Your task to perform on an android device: add a contact in the contacts app Image 0: 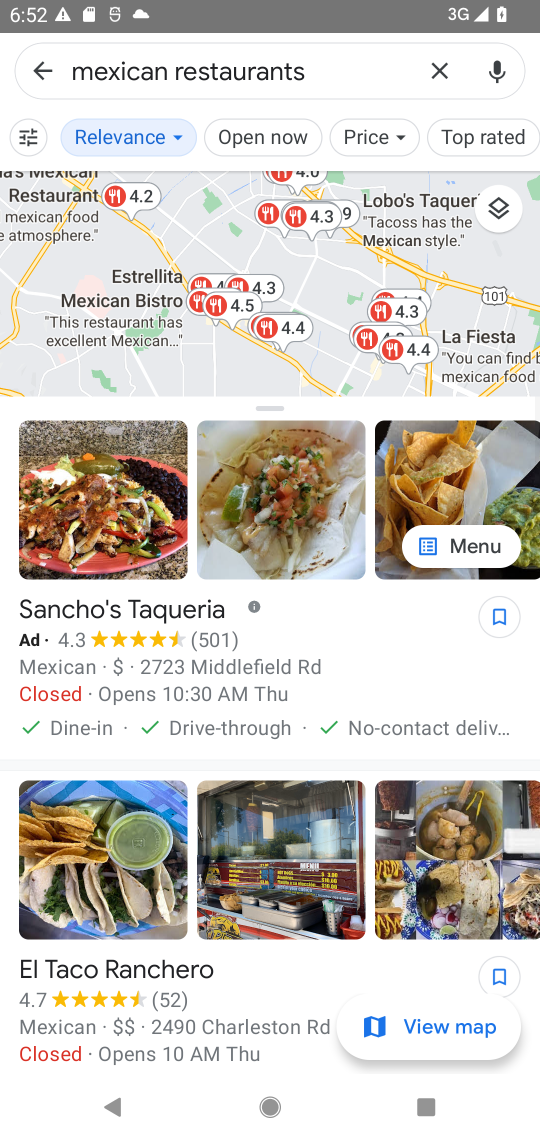
Step 0: press home button
Your task to perform on an android device: add a contact in the contacts app Image 1: 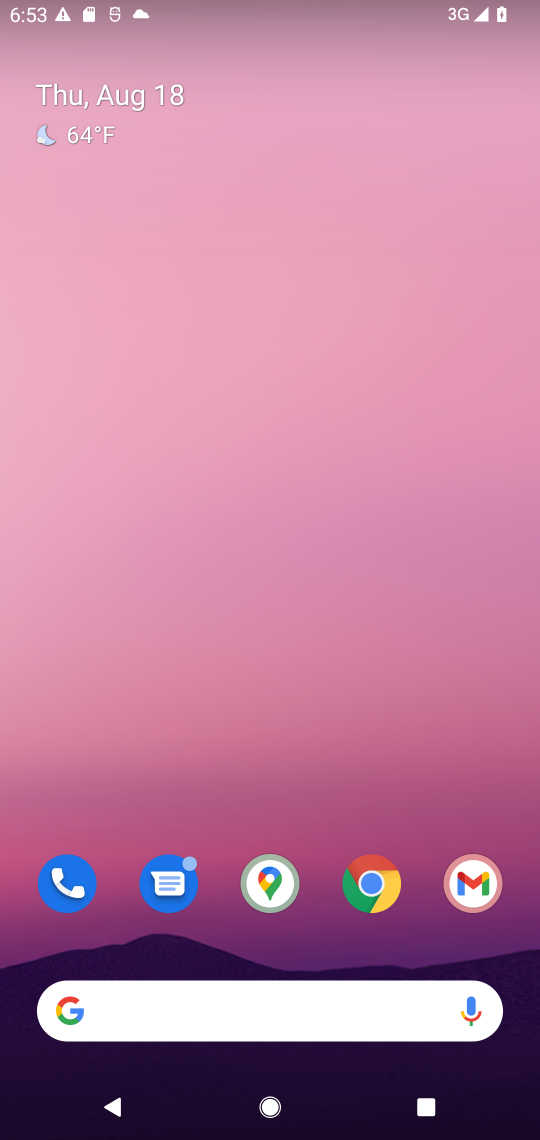
Step 1: drag from (27, 1099) to (411, 362)
Your task to perform on an android device: add a contact in the contacts app Image 2: 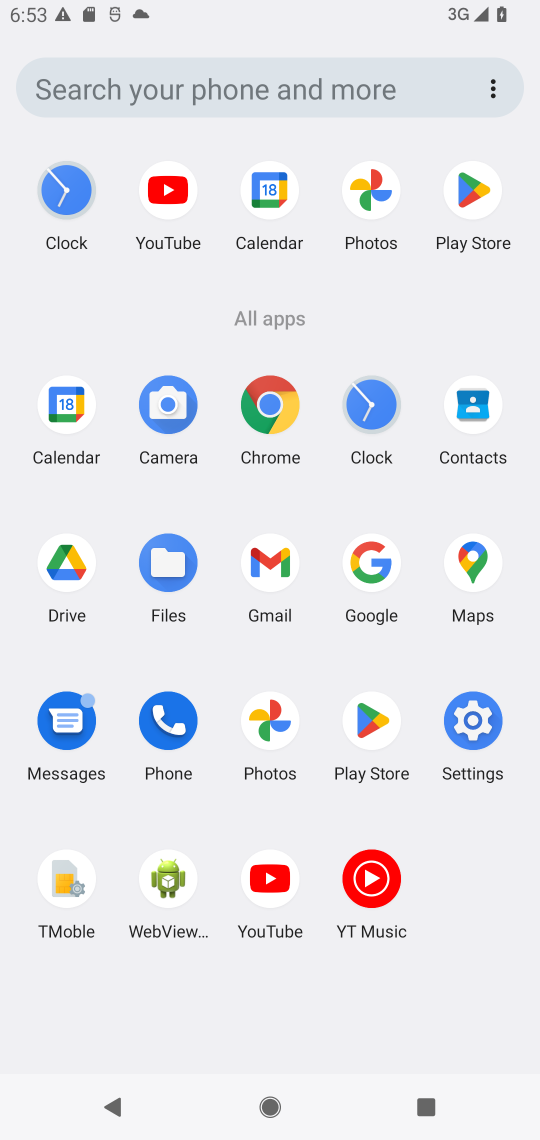
Step 2: click (166, 723)
Your task to perform on an android device: add a contact in the contacts app Image 3: 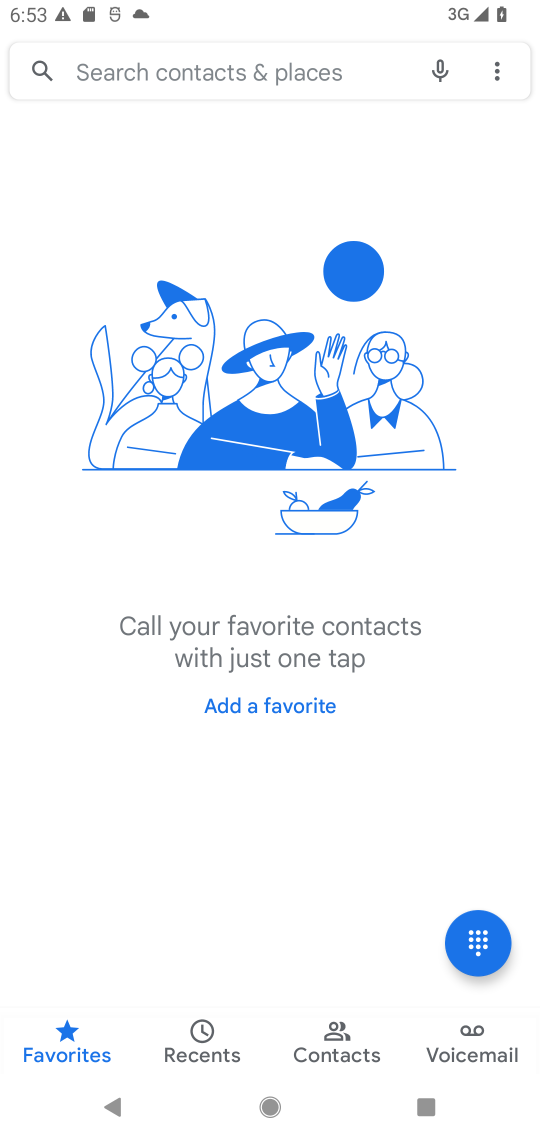
Step 3: click (343, 1031)
Your task to perform on an android device: add a contact in the contacts app Image 4: 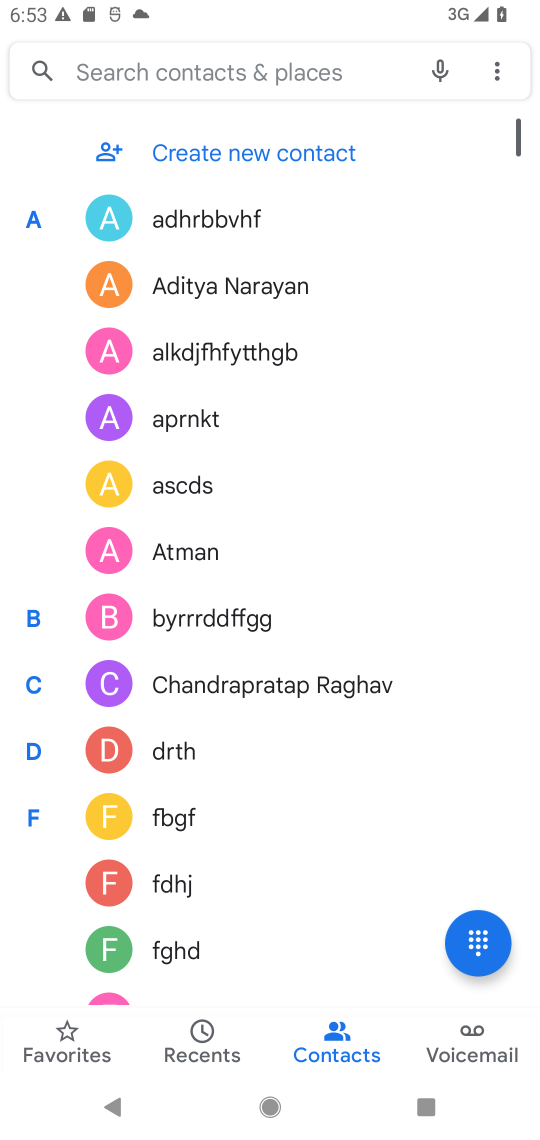
Step 4: click (256, 141)
Your task to perform on an android device: add a contact in the contacts app Image 5: 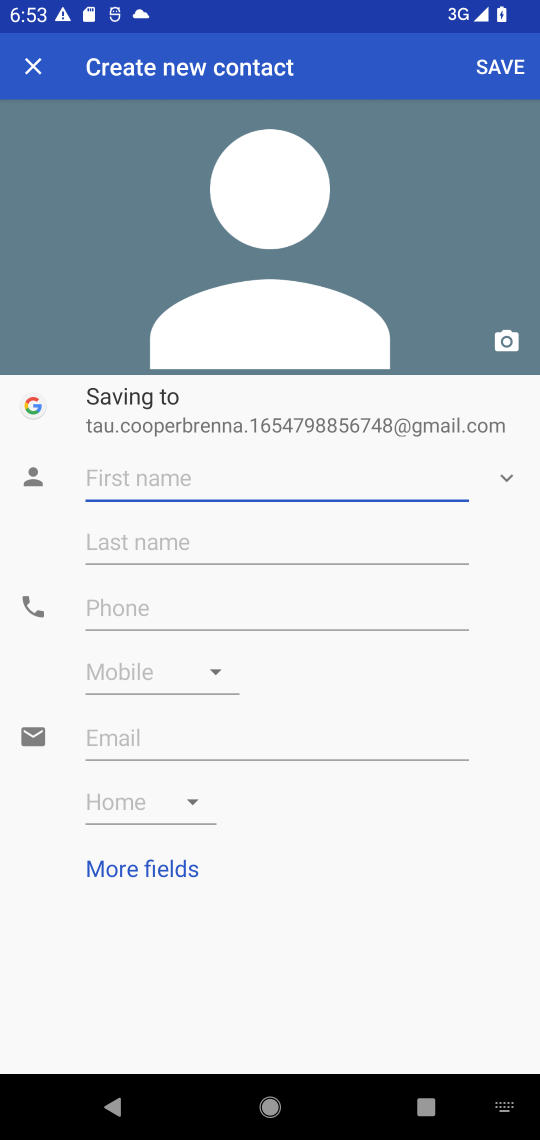
Step 5: type "dsdxhfd"
Your task to perform on an android device: add a contact in the contacts app Image 6: 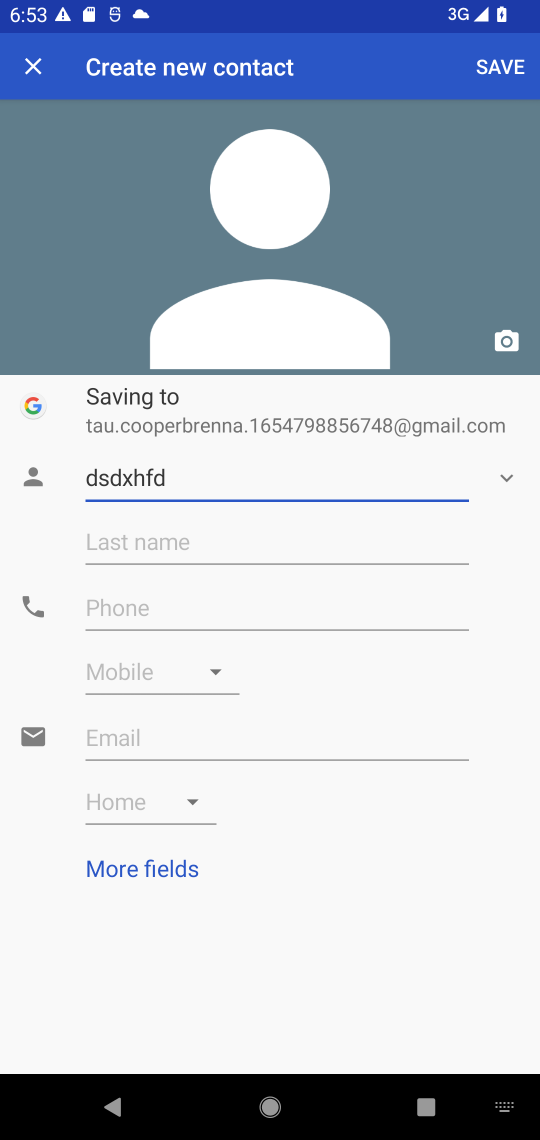
Step 6: click (521, 70)
Your task to perform on an android device: add a contact in the contacts app Image 7: 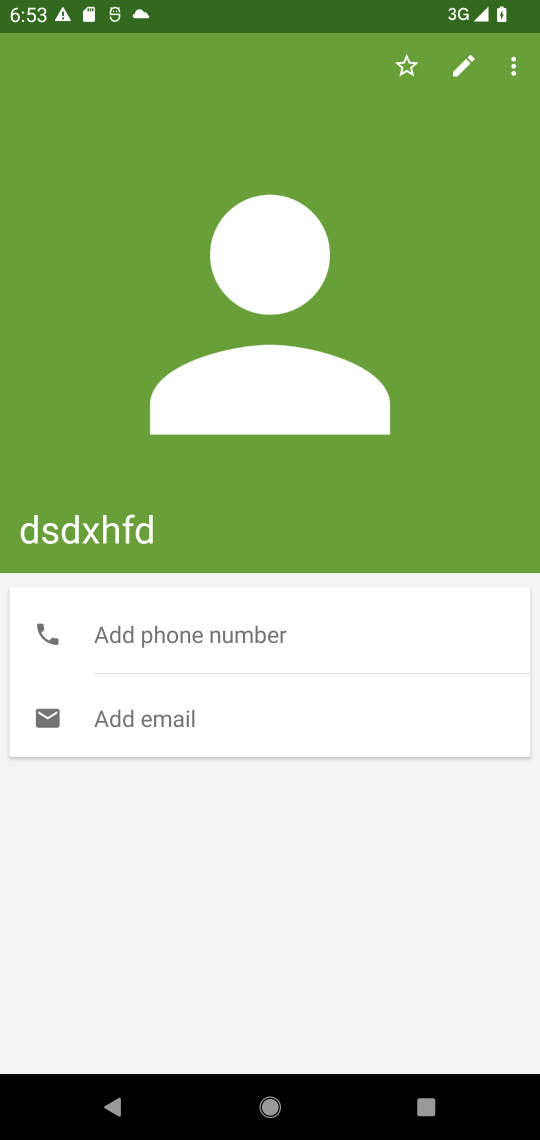
Step 7: task complete